Your task to perform on an android device: open app "Lyft - Rideshare, Bikes, Scooters & Transit" Image 0: 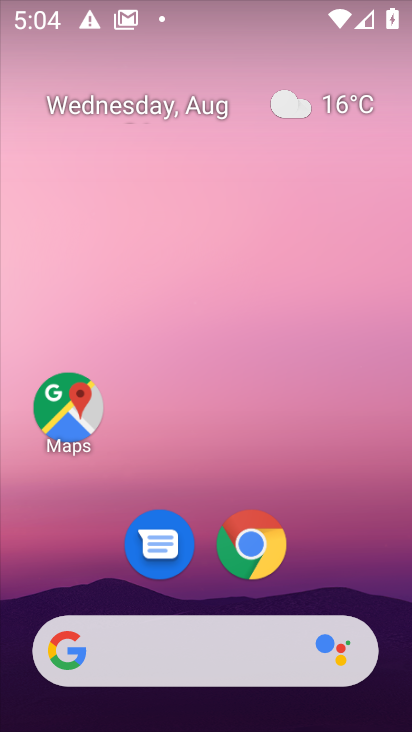
Step 0: drag from (214, 673) to (310, 21)
Your task to perform on an android device: open app "Lyft - Rideshare, Bikes, Scooters & Transit" Image 1: 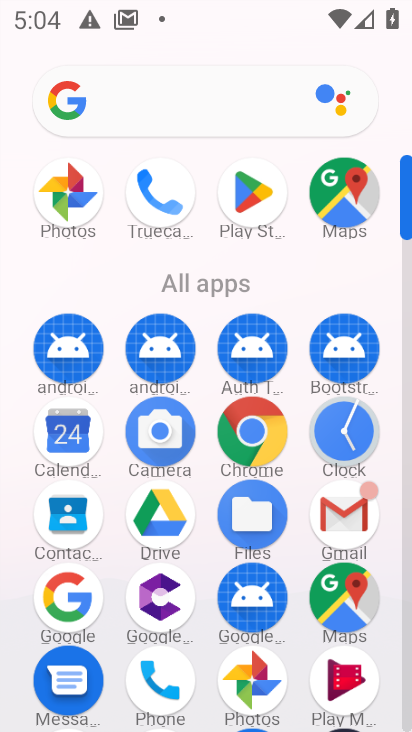
Step 1: click (257, 191)
Your task to perform on an android device: open app "Lyft - Rideshare, Bikes, Scooters & Transit" Image 2: 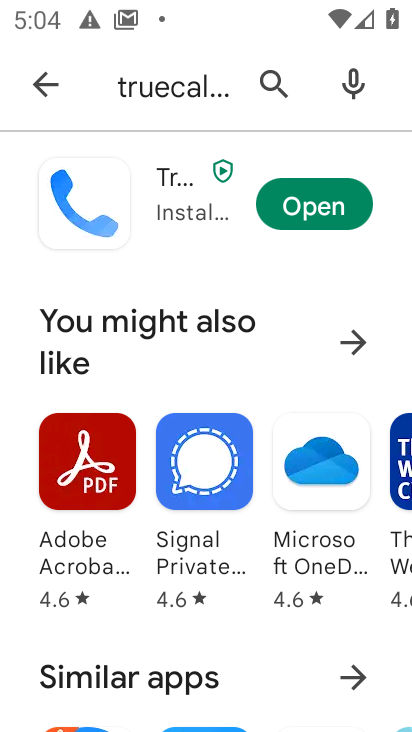
Step 2: press back button
Your task to perform on an android device: open app "Lyft - Rideshare, Bikes, Scooters & Transit" Image 3: 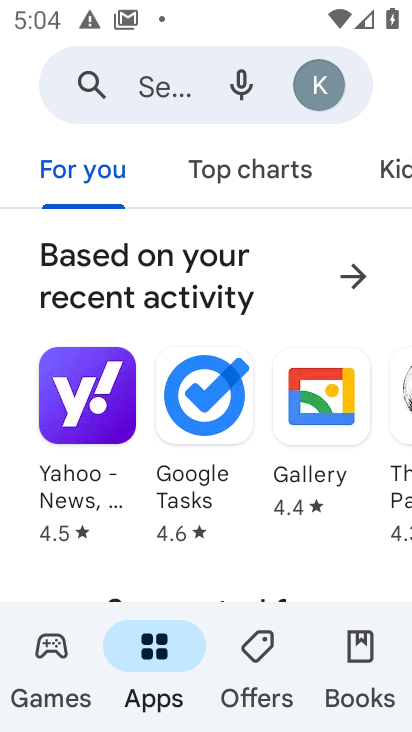
Step 3: click (184, 98)
Your task to perform on an android device: open app "Lyft - Rideshare, Bikes, Scooters & Transit" Image 4: 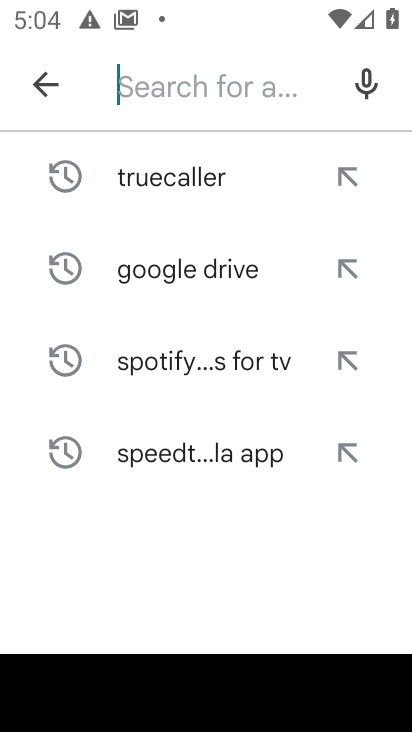
Step 4: type "Lyft - Rideshare, Bikes, Scooters & Transit"
Your task to perform on an android device: open app "Lyft - Rideshare, Bikes, Scooters & Transit" Image 5: 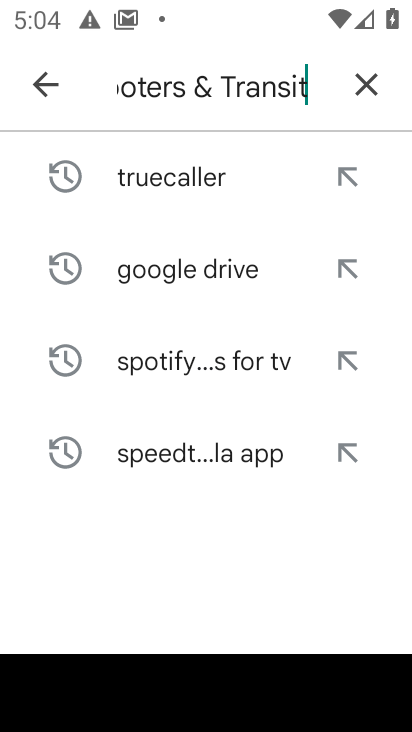
Step 5: type ""
Your task to perform on an android device: open app "Lyft - Rideshare, Bikes, Scooters & Transit" Image 6: 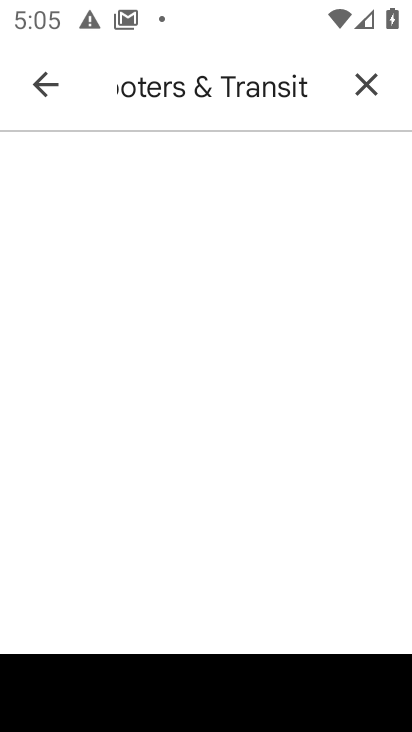
Step 6: task complete